Your task to perform on an android device: Go to notification settings Image 0: 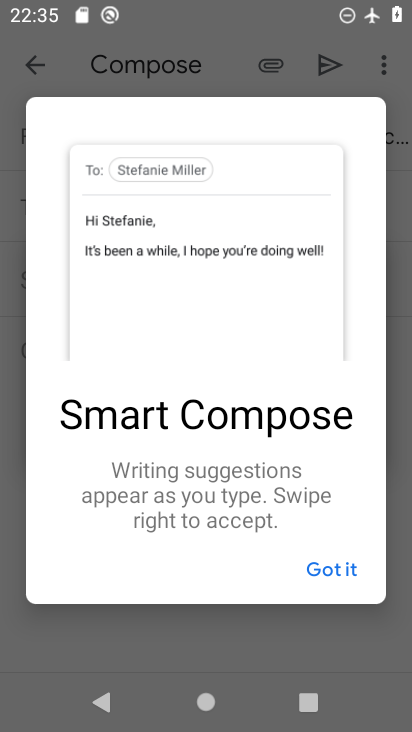
Step 0: press home button
Your task to perform on an android device: Go to notification settings Image 1: 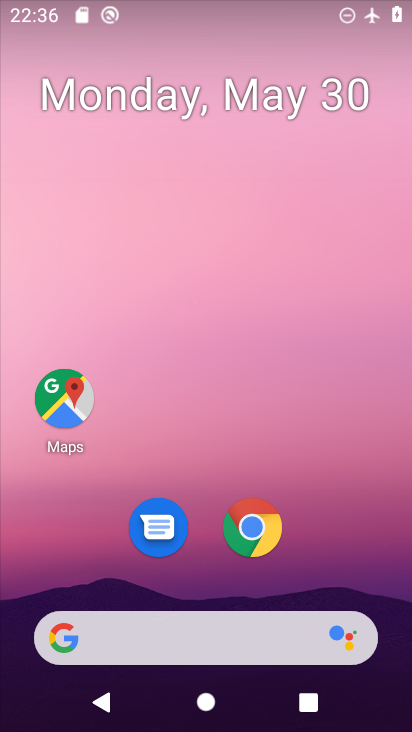
Step 1: drag from (286, 552) to (277, 160)
Your task to perform on an android device: Go to notification settings Image 2: 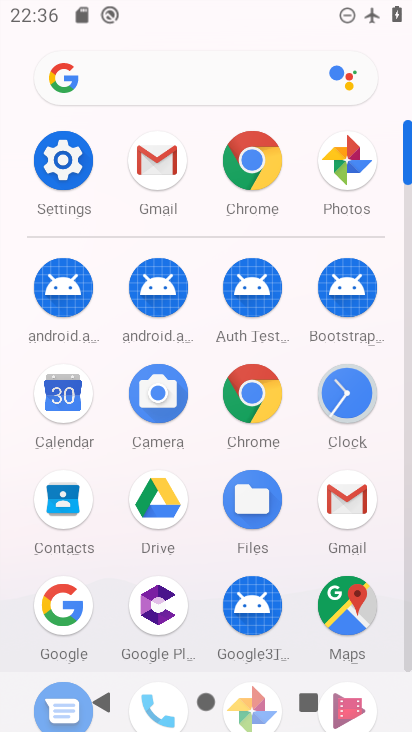
Step 2: click (72, 137)
Your task to perform on an android device: Go to notification settings Image 3: 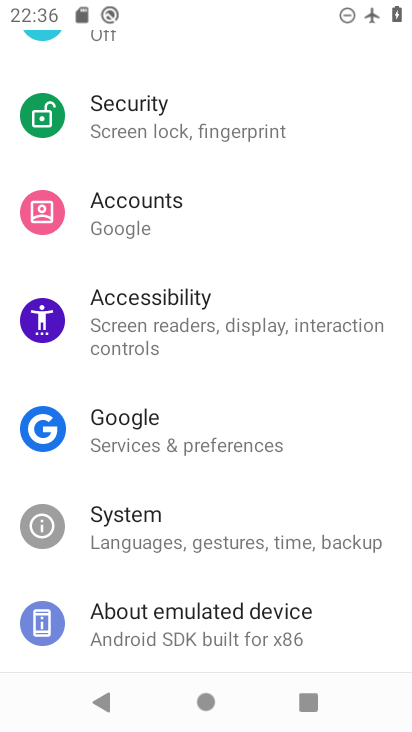
Step 3: drag from (214, 135) to (185, 508)
Your task to perform on an android device: Go to notification settings Image 4: 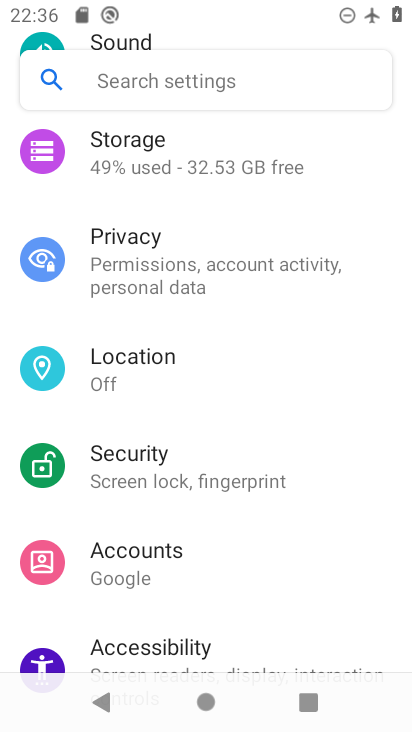
Step 4: drag from (264, 164) to (275, 455)
Your task to perform on an android device: Go to notification settings Image 5: 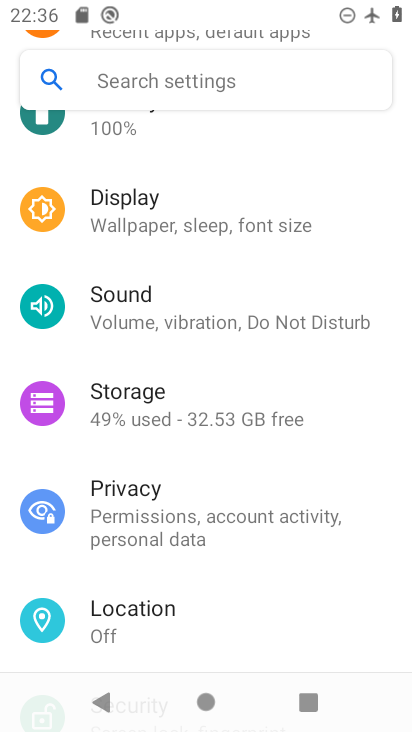
Step 5: click (275, 458)
Your task to perform on an android device: Go to notification settings Image 6: 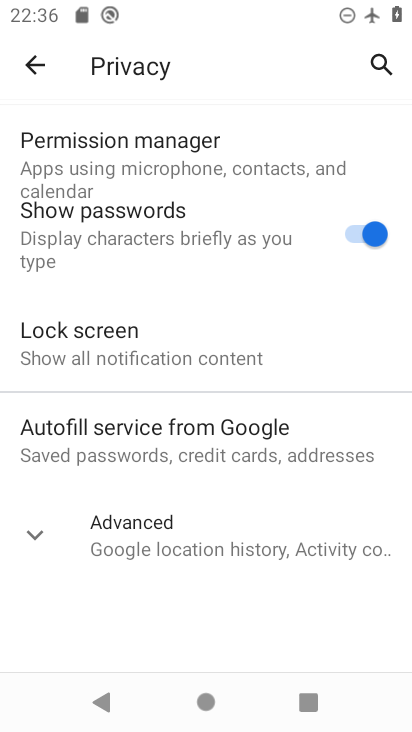
Step 6: drag from (204, 150) to (208, 482)
Your task to perform on an android device: Go to notification settings Image 7: 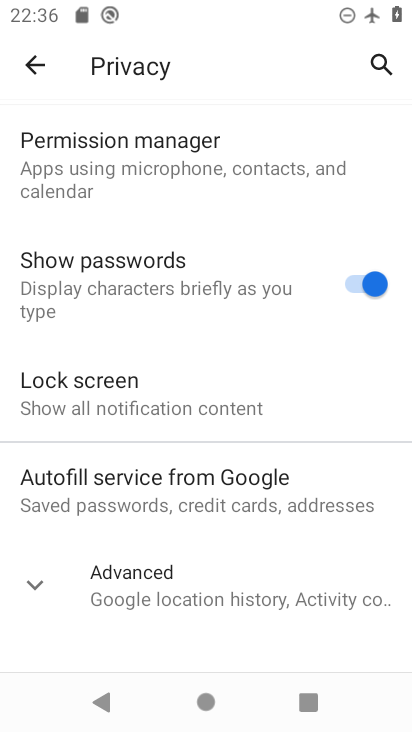
Step 7: click (36, 63)
Your task to perform on an android device: Go to notification settings Image 8: 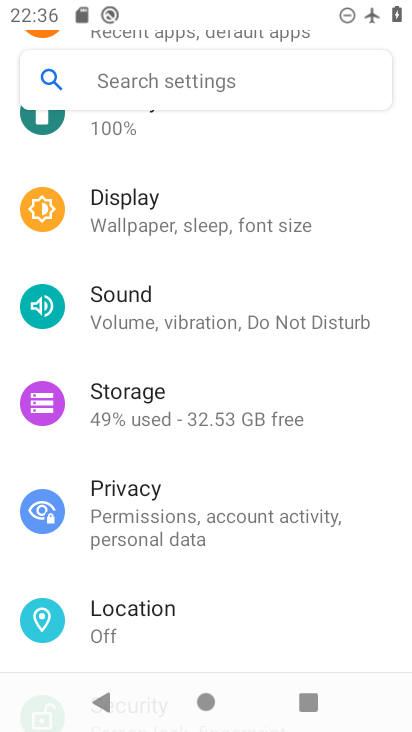
Step 8: drag from (232, 189) to (180, 705)
Your task to perform on an android device: Go to notification settings Image 9: 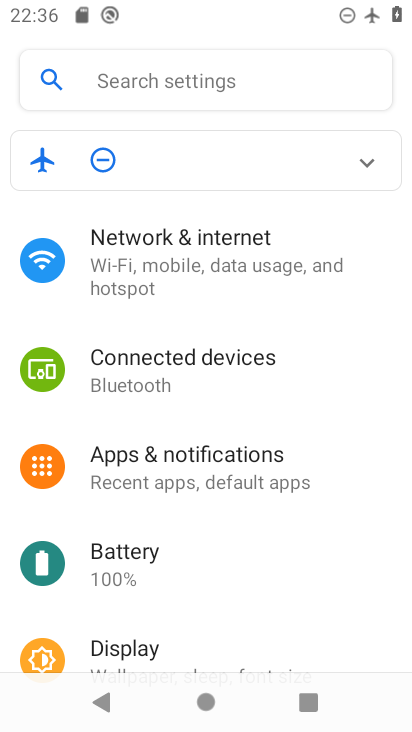
Step 9: click (184, 468)
Your task to perform on an android device: Go to notification settings Image 10: 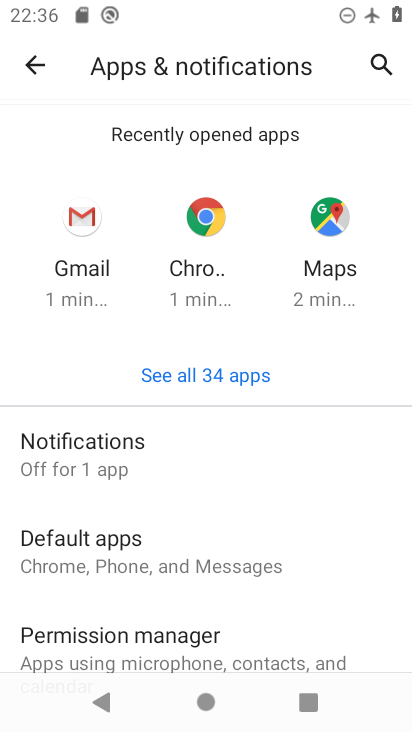
Step 10: click (97, 460)
Your task to perform on an android device: Go to notification settings Image 11: 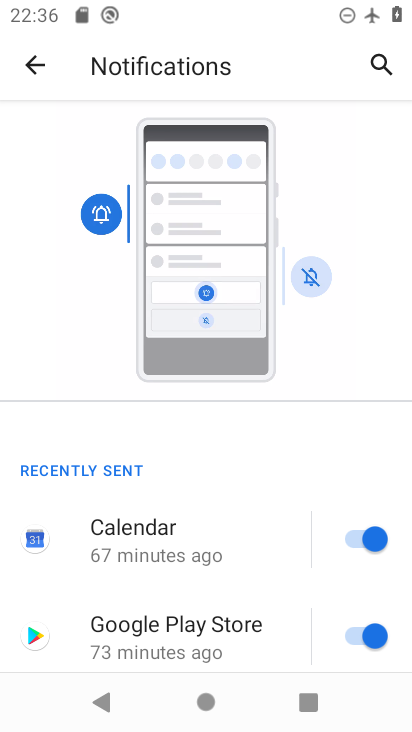
Step 11: task complete